Your task to perform on an android device: Go to CNN.com Image 0: 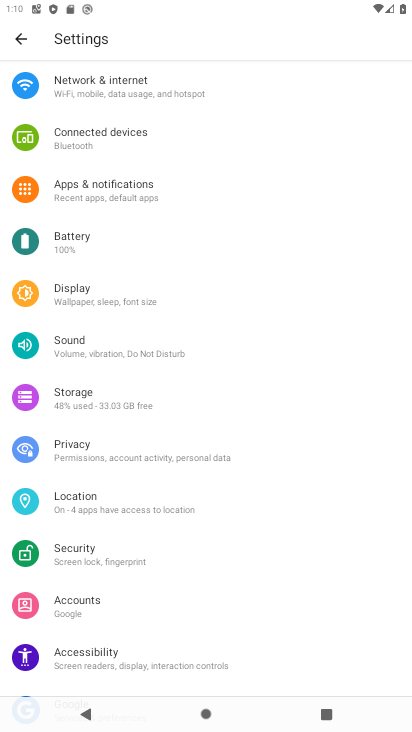
Step 0: press home button
Your task to perform on an android device: Go to CNN.com Image 1: 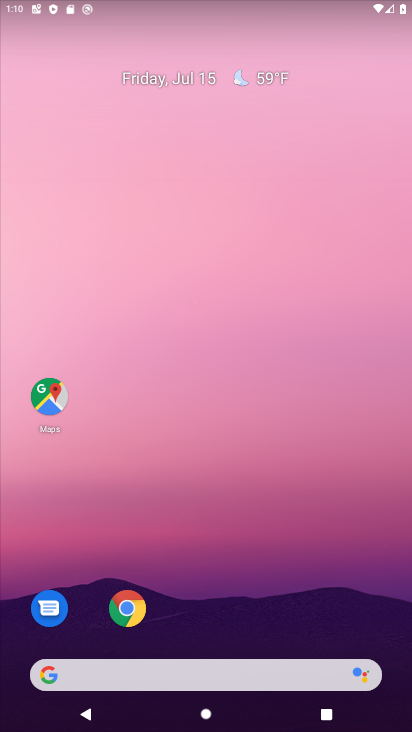
Step 1: drag from (189, 657) to (189, 186)
Your task to perform on an android device: Go to CNN.com Image 2: 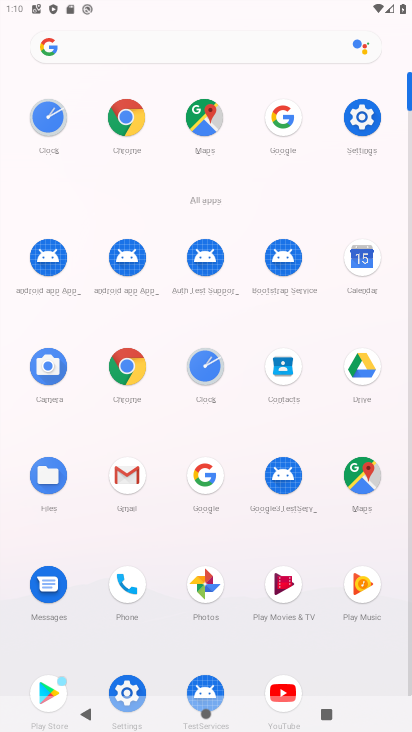
Step 2: click (195, 477)
Your task to perform on an android device: Go to CNN.com Image 3: 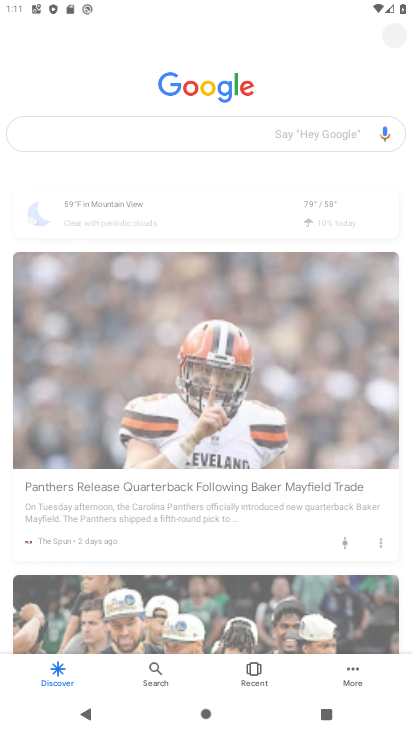
Step 3: click (144, 125)
Your task to perform on an android device: Go to CNN.com Image 4: 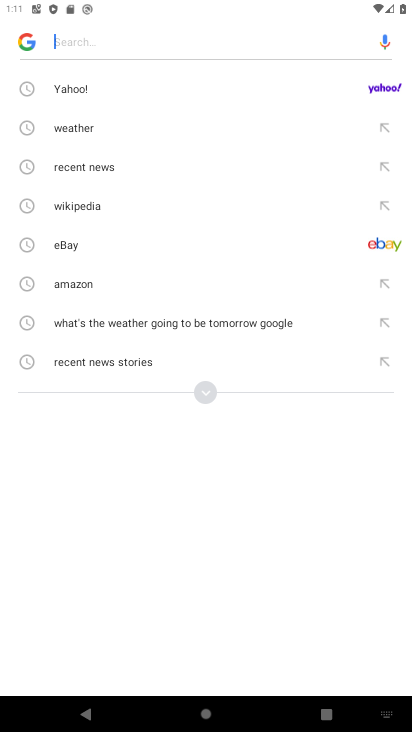
Step 4: click (200, 393)
Your task to perform on an android device: Go to CNN.com Image 5: 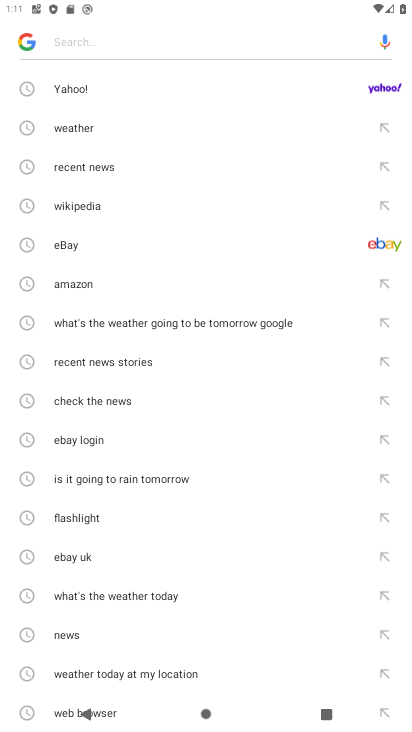
Step 5: drag from (93, 683) to (93, 285)
Your task to perform on an android device: Go to CNN.com Image 6: 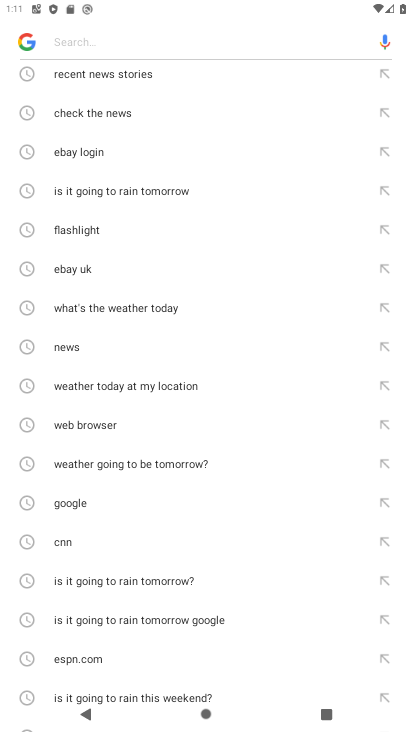
Step 6: click (66, 544)
Your task to perform on an android device: Go to CNN.com Image 7: 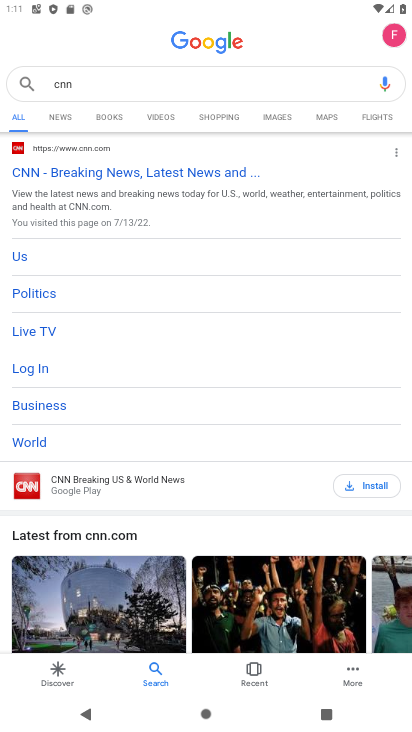
Step 7: click (89, 167)
Your task to perform on an android device: Go to CNN.com Image 8: 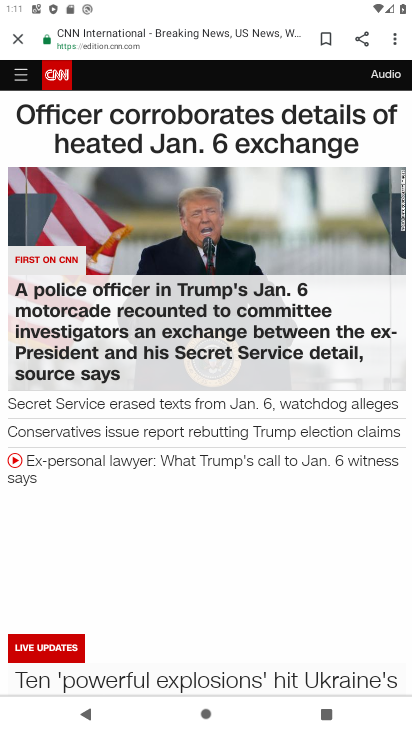
Step 8: task complete